Your task to perform on an android device: Go to internet settings Image 0: 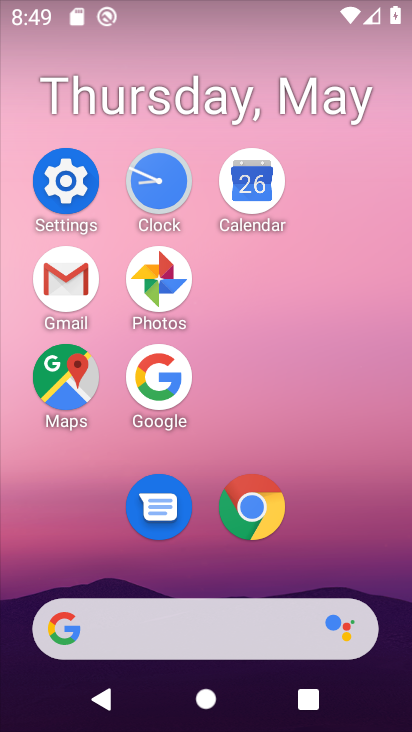
Step 0: click (79, 191)
Your task to perform on an android device: Go to internet settings Image 1: 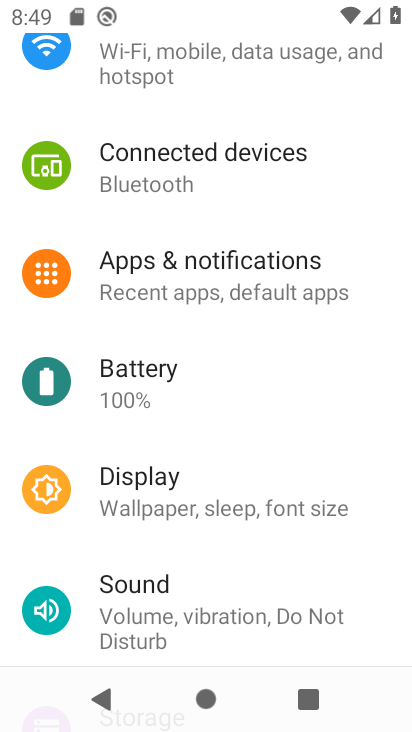
Step 1: drag from (252, 160) to (313, 472)
Your task to perform on an android device: Go to internet settings Image 2: 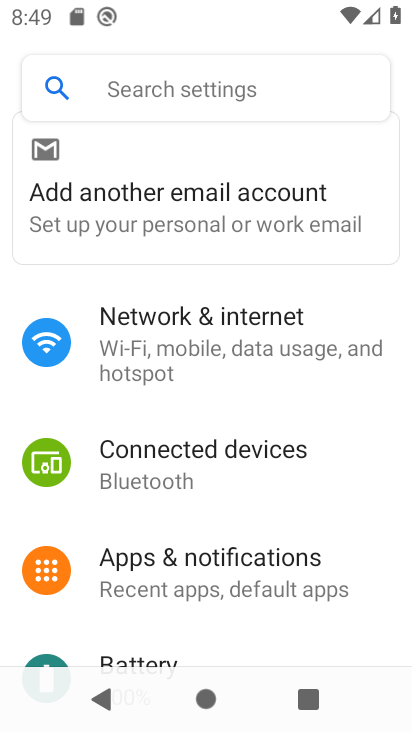
Step 2: click (226, 305)
Your task to perform on an android device: Go to internet settings Image 3: 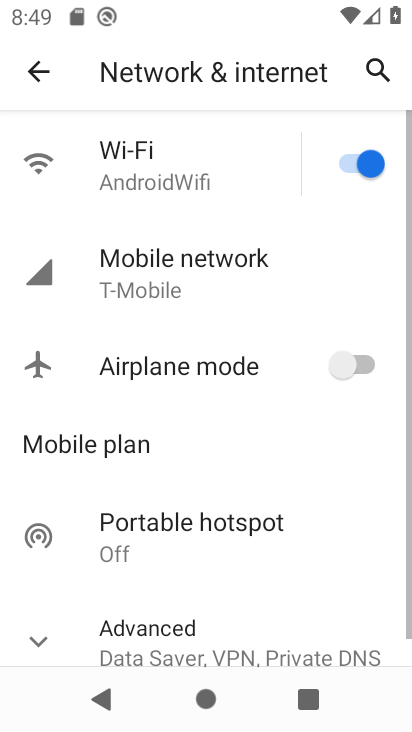
Step 3: task complete